Your task to perform on an android device: snooze an email in the gmail app Image 0: 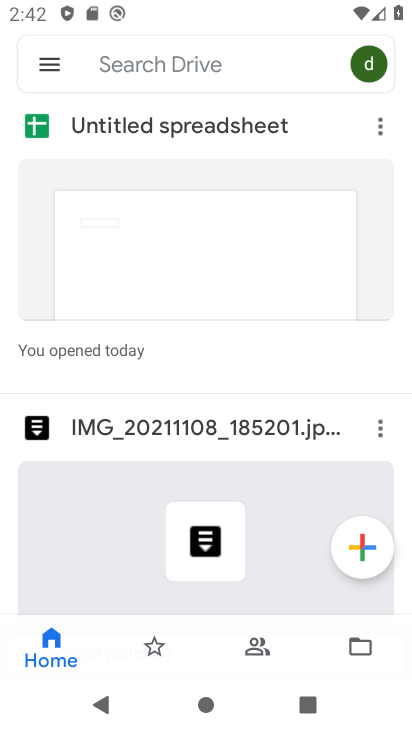
Step 0: press home button
Your task to perform on an android device: snooze an email in the gmail app Image 1: 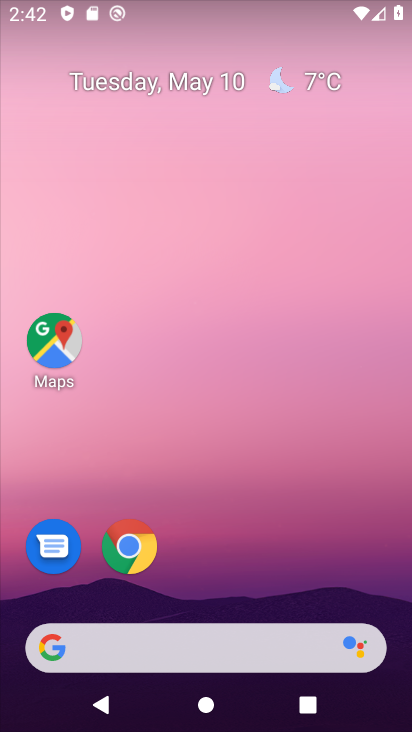
Step 1: drag from (275, 628) to (284, 51)
Your task to perform on an android device: snooze an email in the gmail app Image 2: 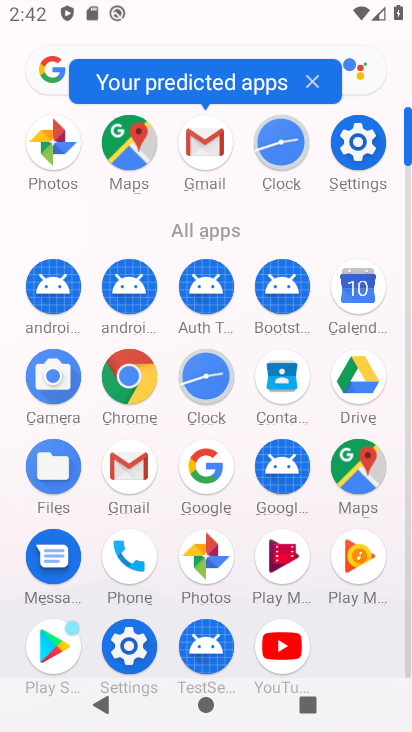
Step 2: click (130, 472)
Your task to perform on an android device: snooze an email in the gmail app Image 3: 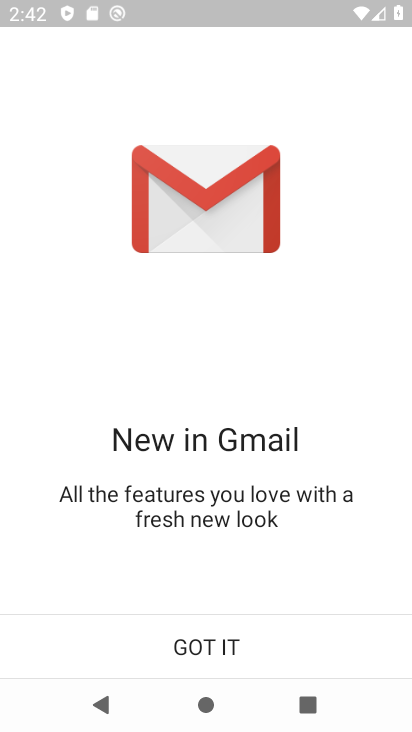
Step 3: click (218, 632)
Your task to perform on an android device: snooze an email in the gmail app Image 4: 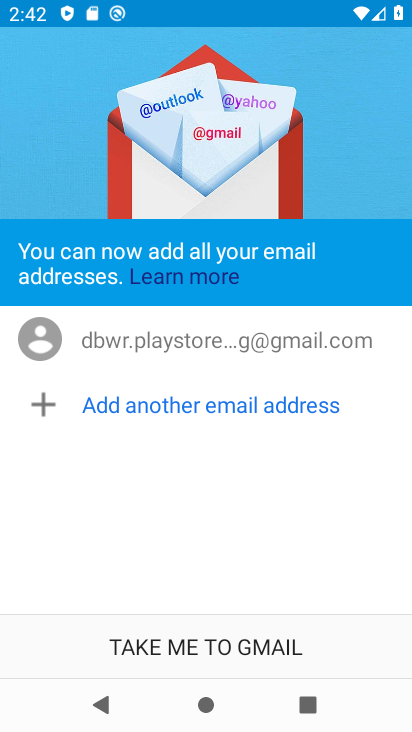
Step 4: click (215, 654)
Your task to perform on an android device: snooze an email in the gmail app Image 5: 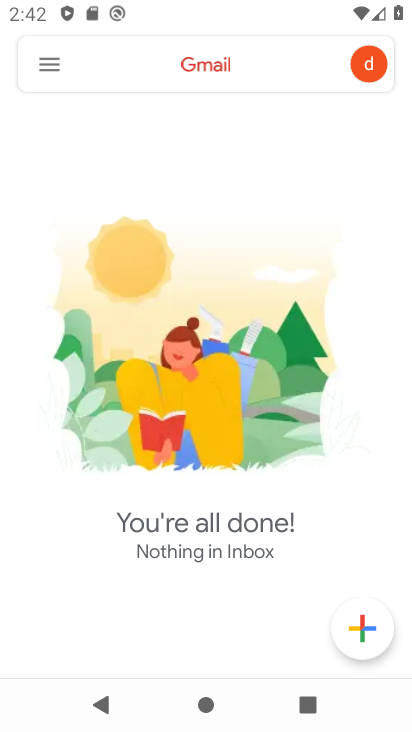
Step 5: click (46, 81)
Your task to perform on an android device: snooze an email in the gmail app Image 6: 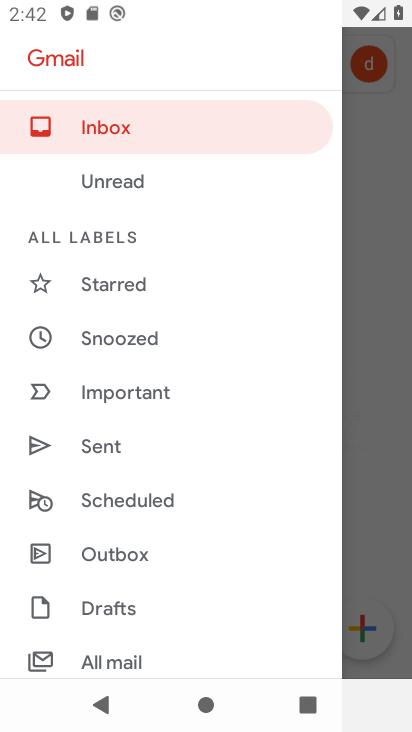
Step 6: click (122, 335)
Your task to perform on an android device: snooze an email in the gmail app Image 7: 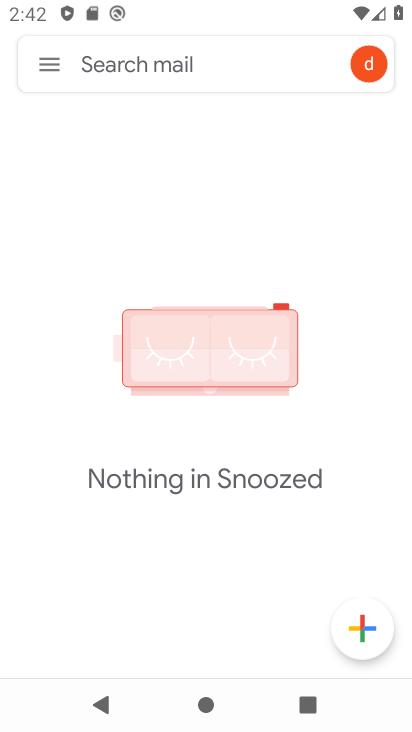
Step 7: task complete